Your task to perform on an android device: Empty the shopping cart on costco.com. Image 0: 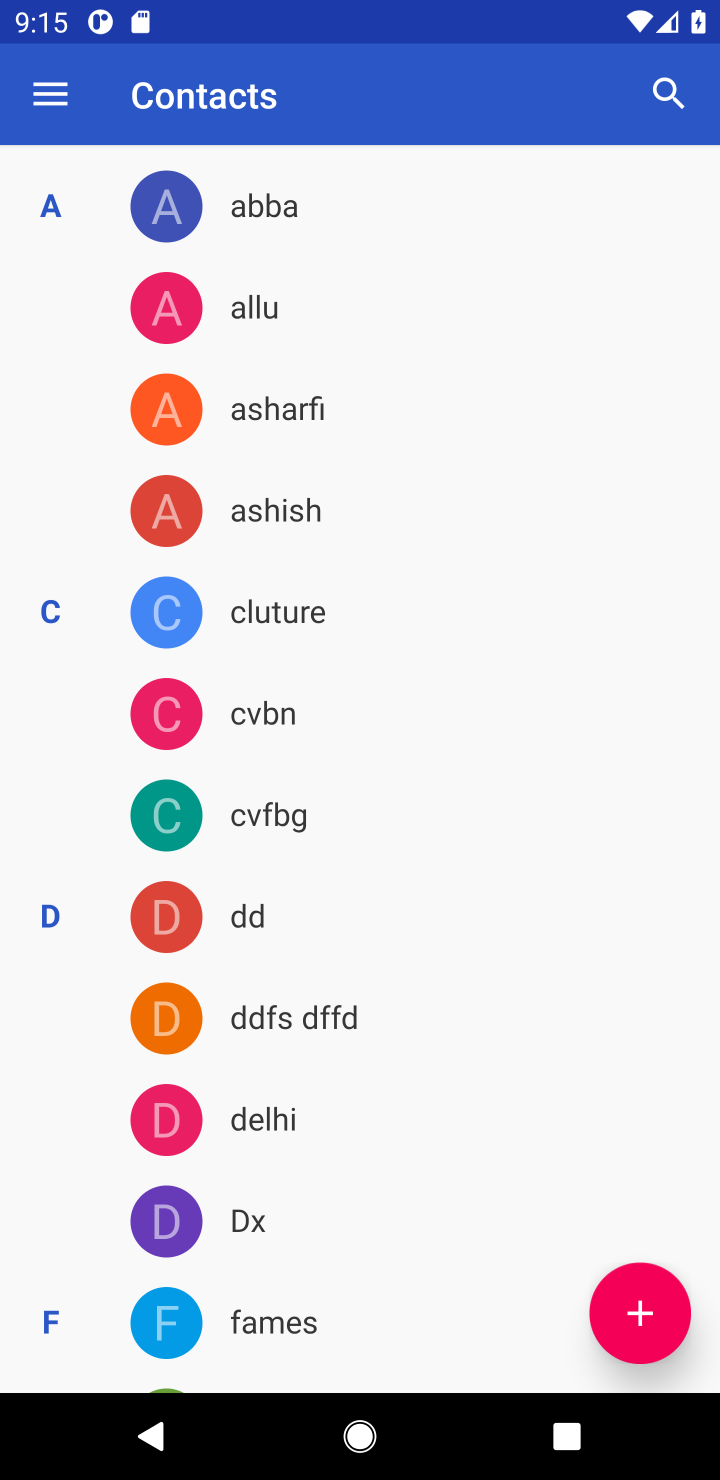
Step 0: press home button
Your task to perform on an android device: Empty the shopping cart on costco.com. Image 1: 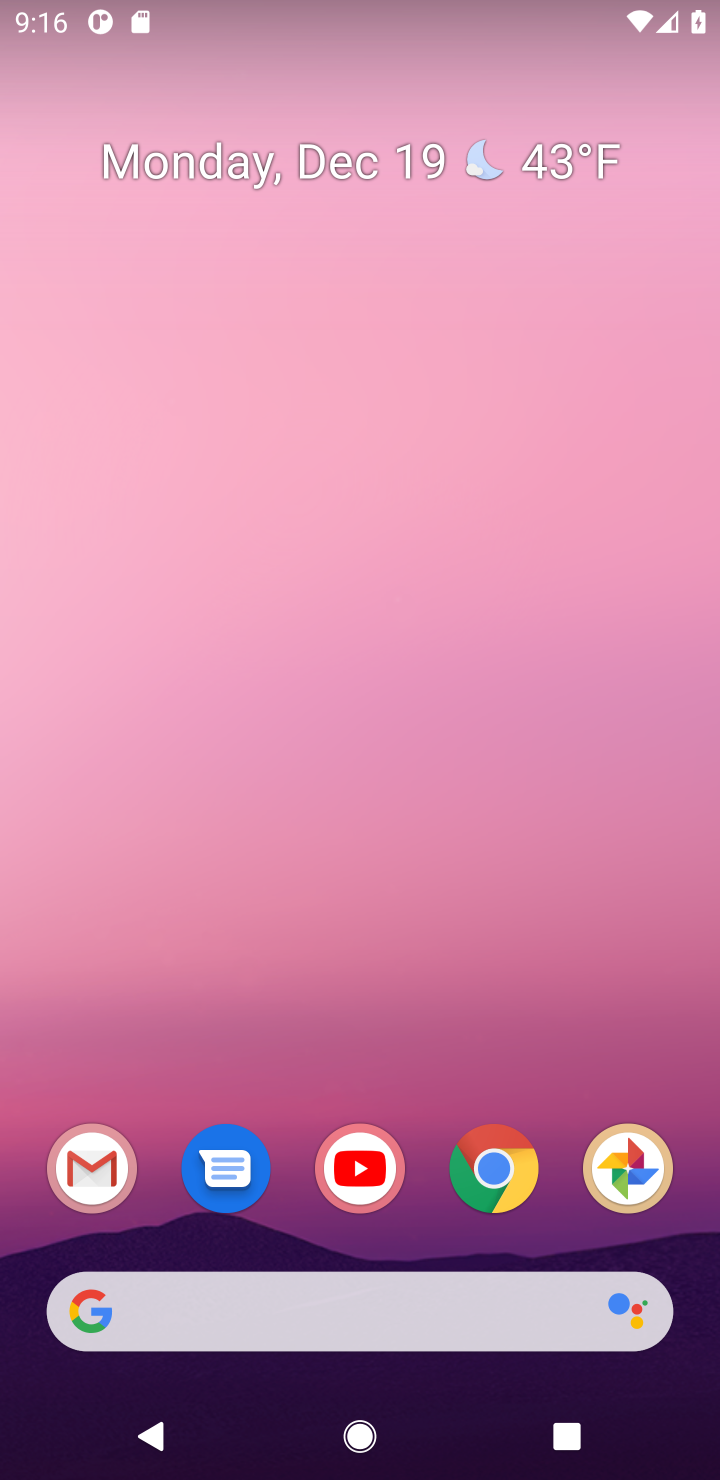
Step 1: click (504, 1183)
Your task to perform on an android device: Empty the shopping cart on costco.com. Image 2: 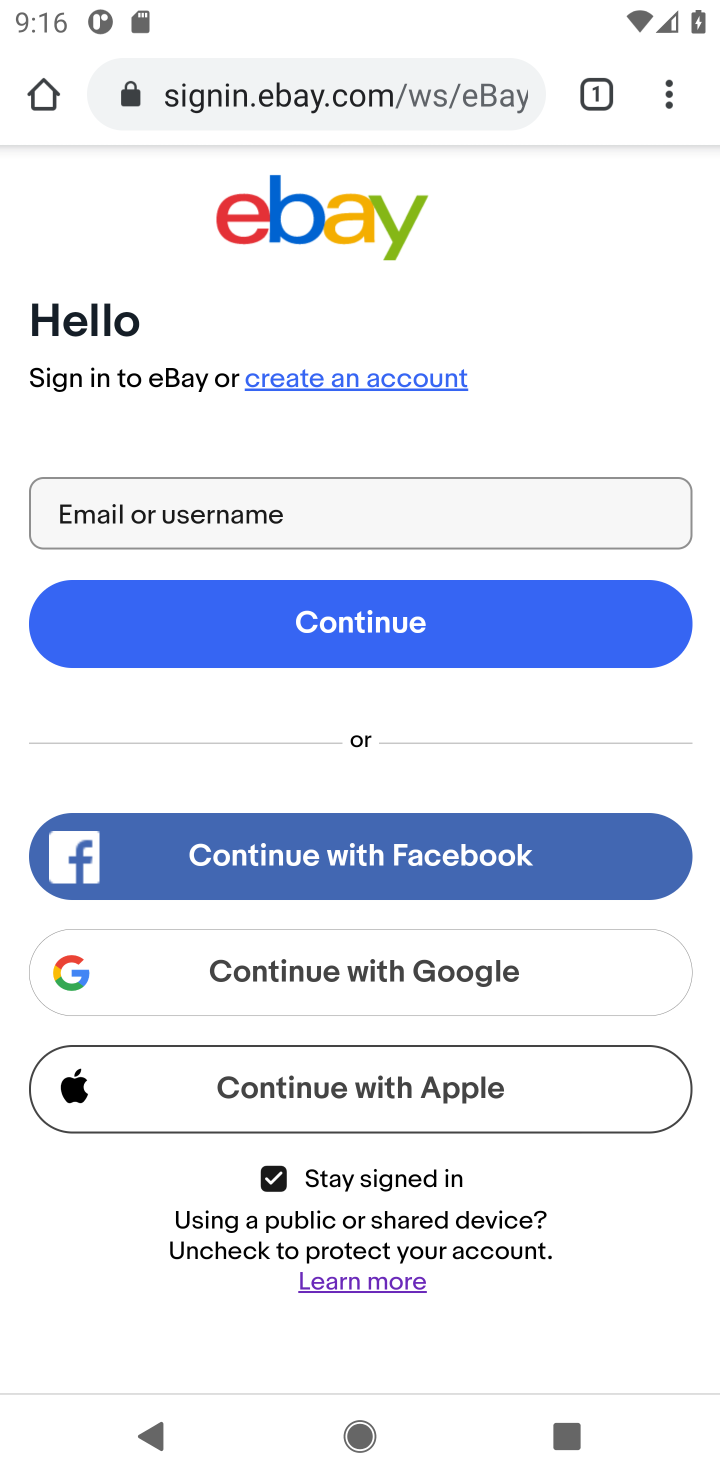
Step 2: click (243, 103)
Your task to perform on an android device: Empty the shopping cart on costco.com. Image 3: 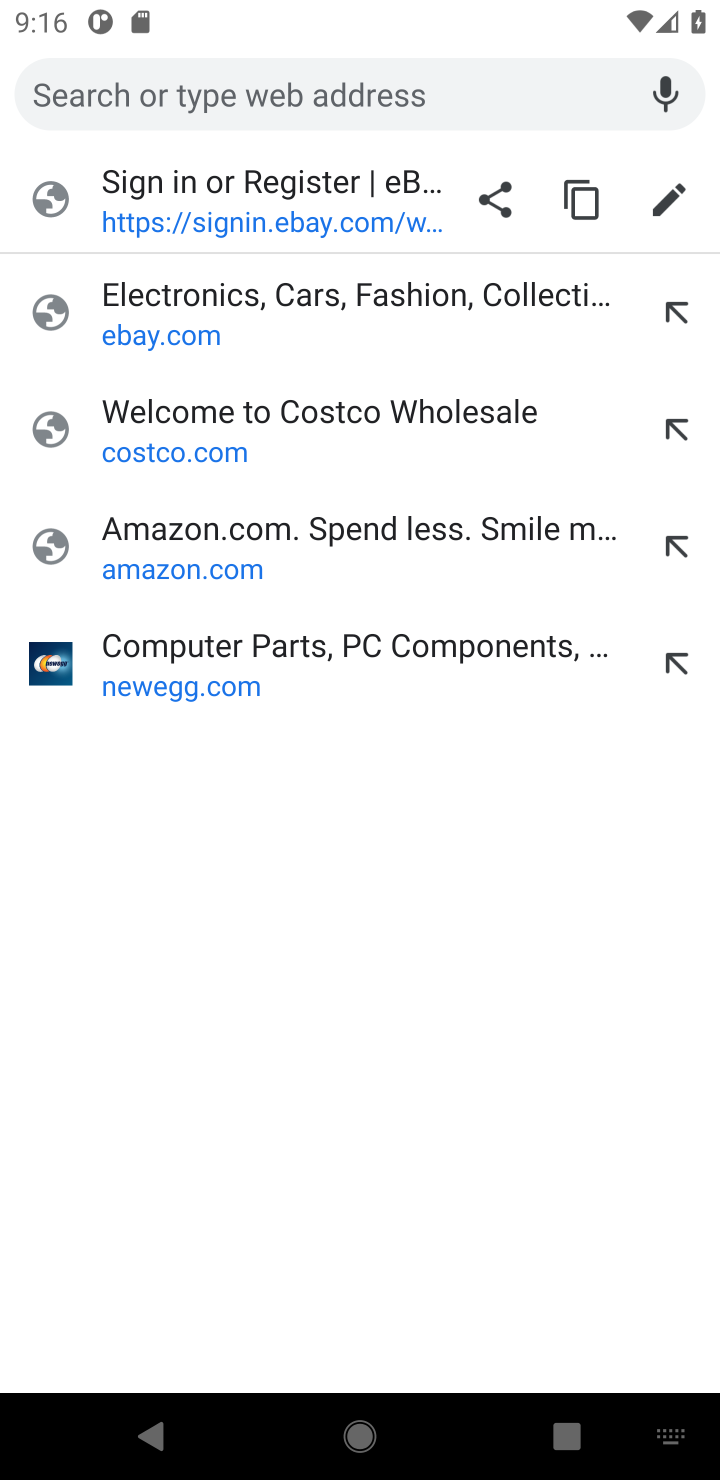
Step 3: click (127, 429)
Your task to perform on an android device: Empty the shopping cart on costco.com. Image 4: 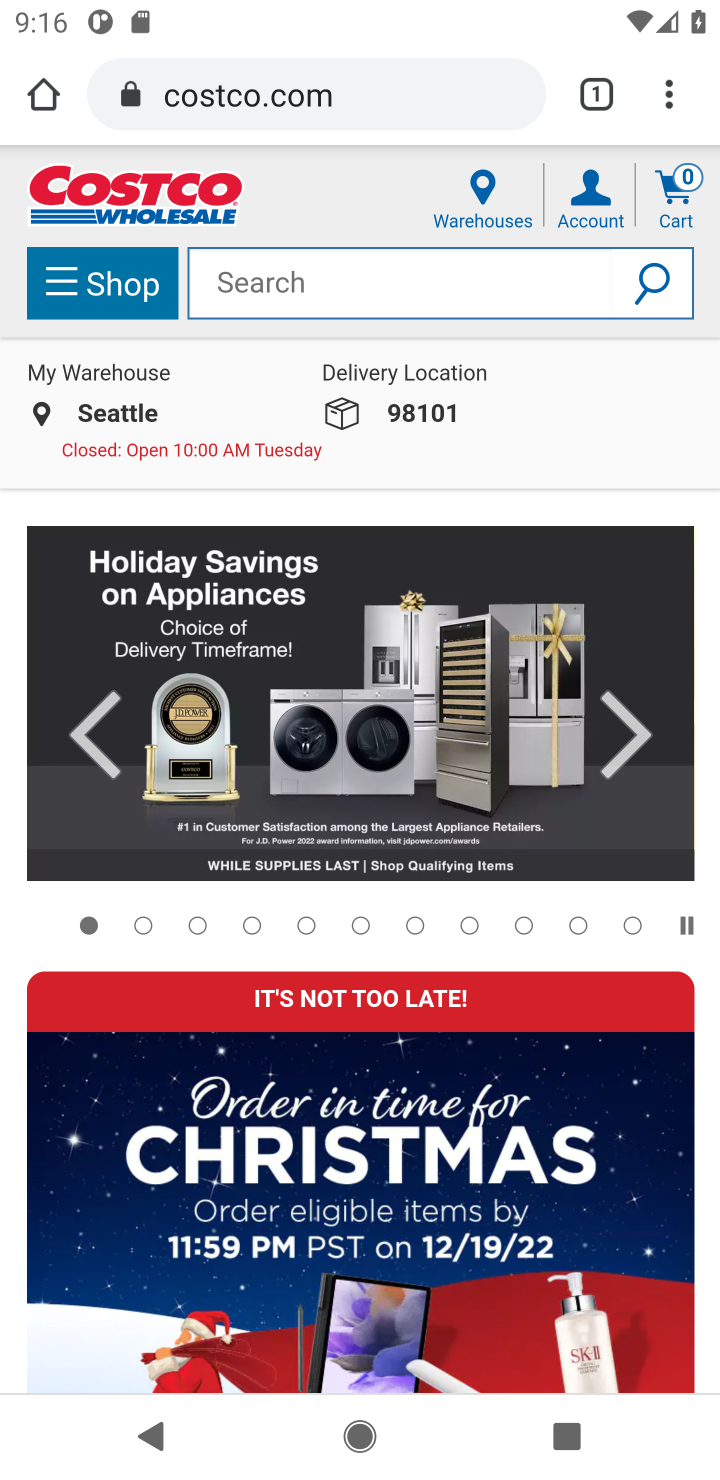
Step 4: click (668, 210)
Your task to perform on an android device: Empty the shopping cart on costco.com. Image 5: 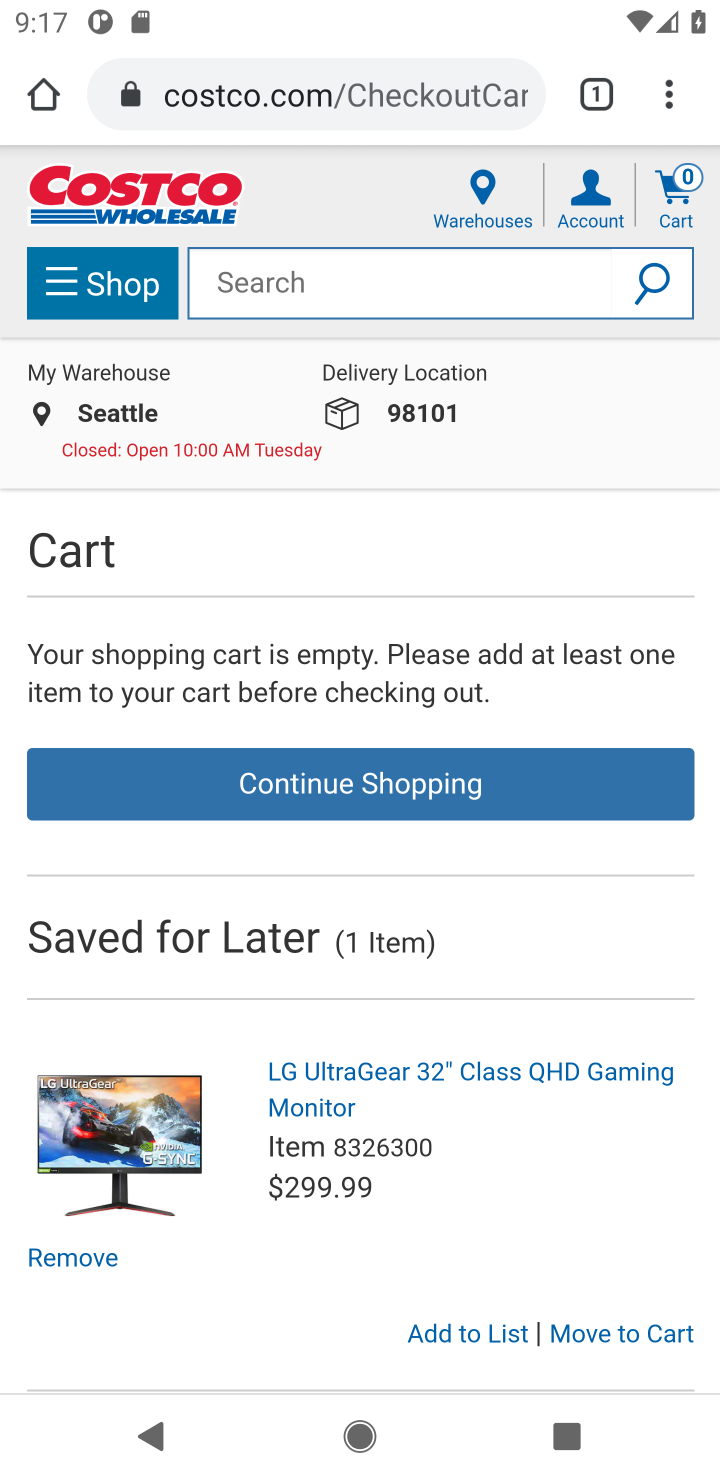
Step 5: task complete